Your task to perform on an android device: Add acer nitro to the cart on bestbuy.com, then select checkout. Image 0: 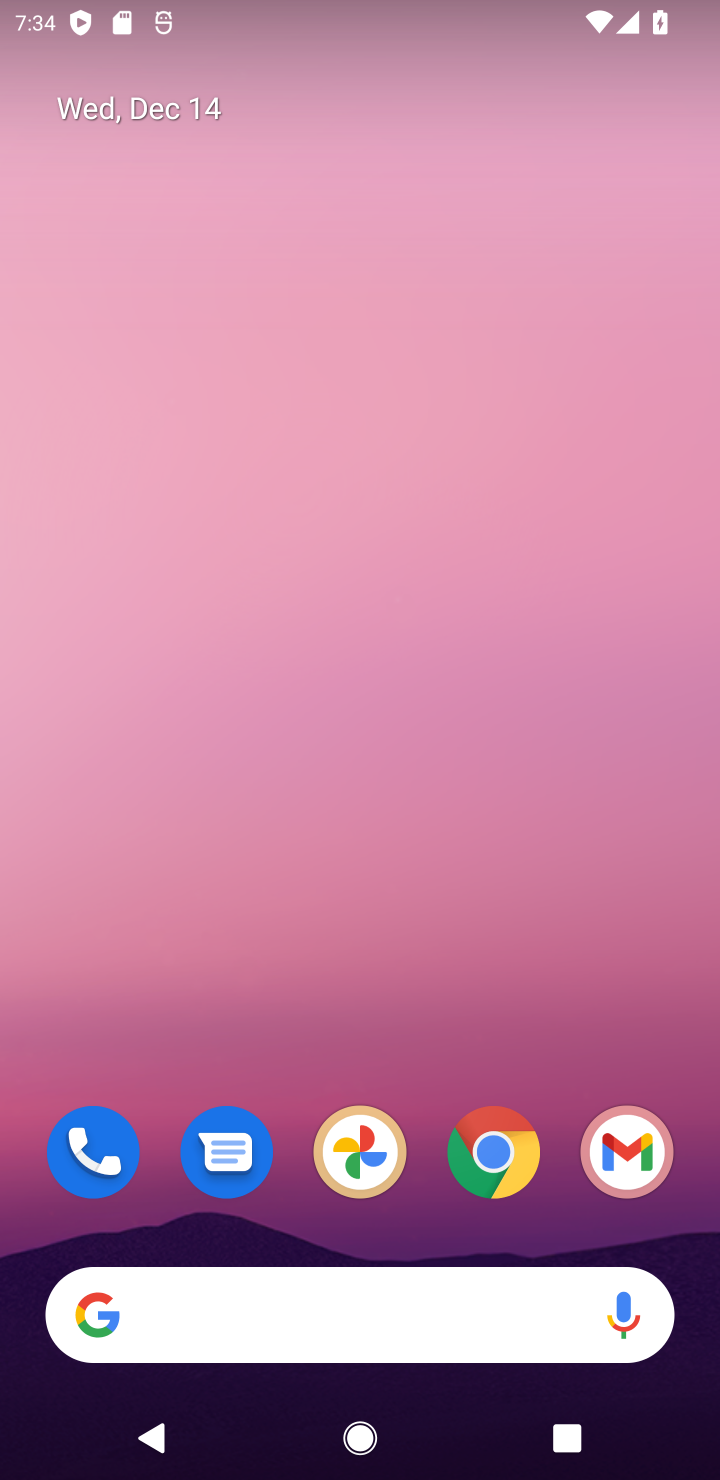
Step 0: click (508, 1168)
Your task to perform on an android device: Add acer nitro to the cart on bestbuy.com, then select checkout. Image 1: 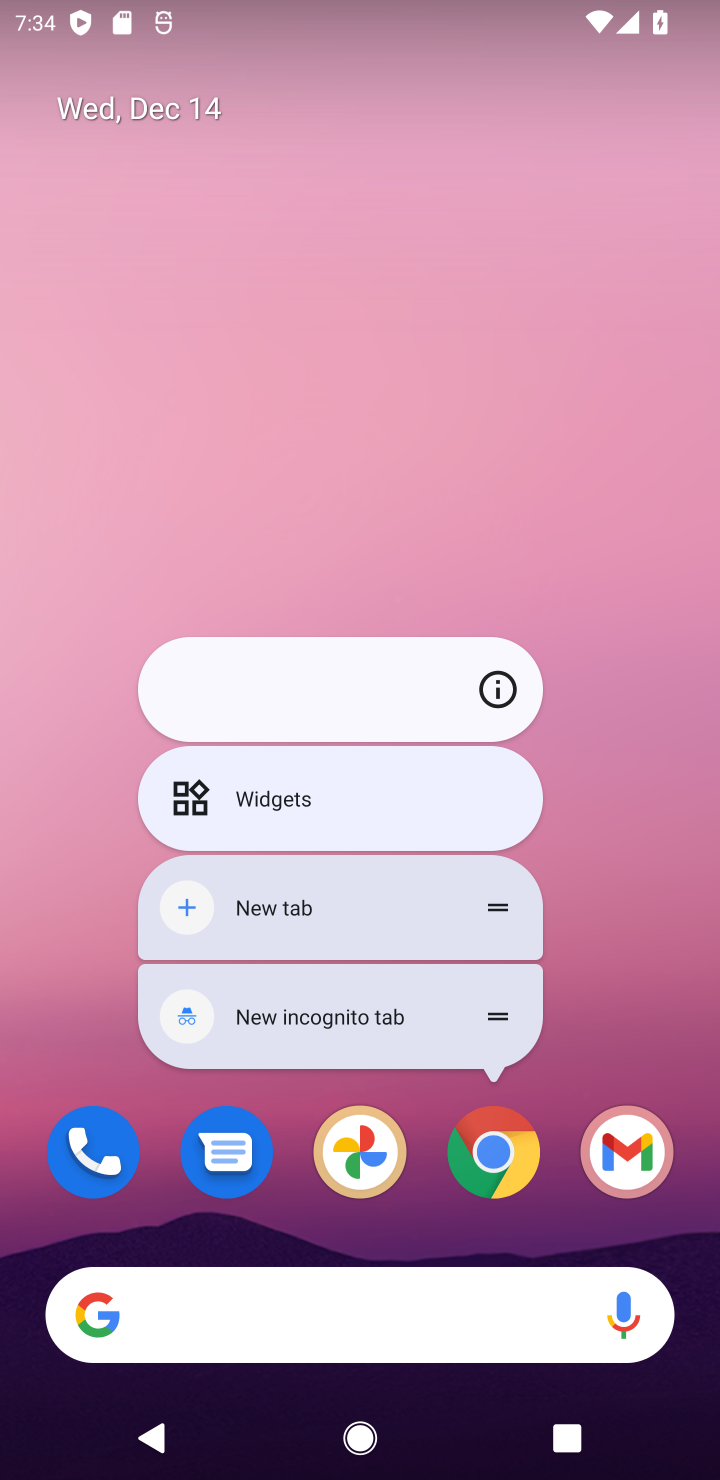
Step 1: click (506, 1168)
Your task to perform on an android device: Add acer nitro to the cart on bestbuy.com, then select checkout. Image 2: 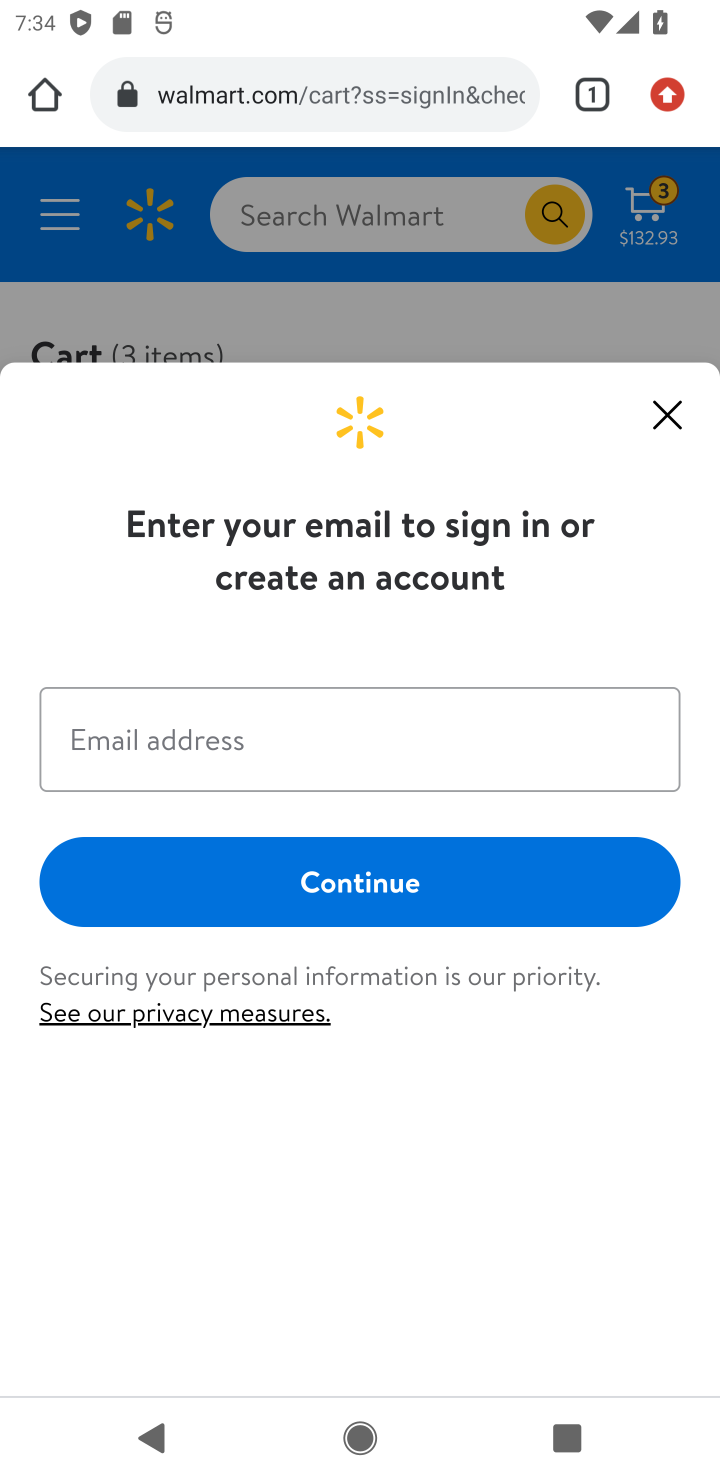
Step 2: click (256, 105)
Your task to perform on an android device: Add acer nitro to the cart on bestbuy.com, then select checkout. Image 3: 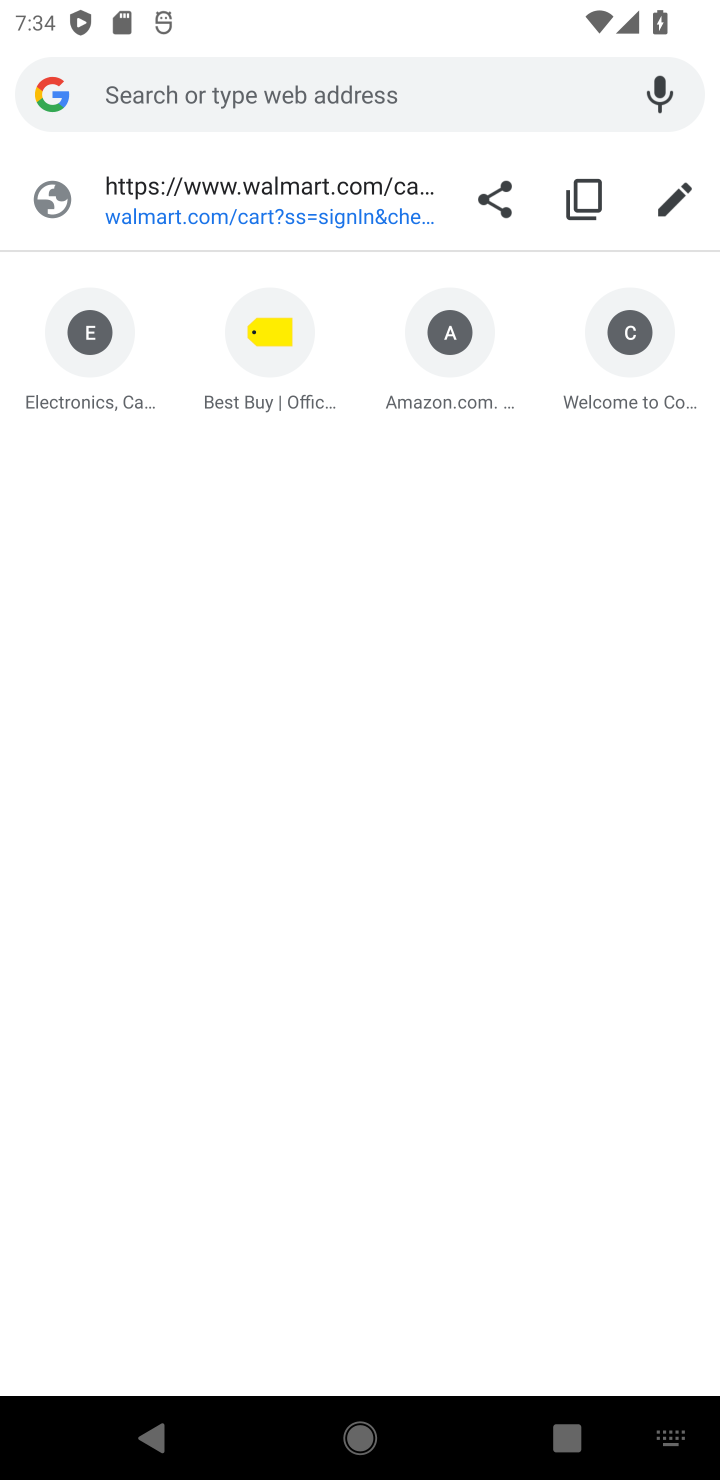
Step 3: click (256, 315)
Your task to perform on an android device: Add acer nitro to the cart on bestbuy.com, then select checkout. Image 4: 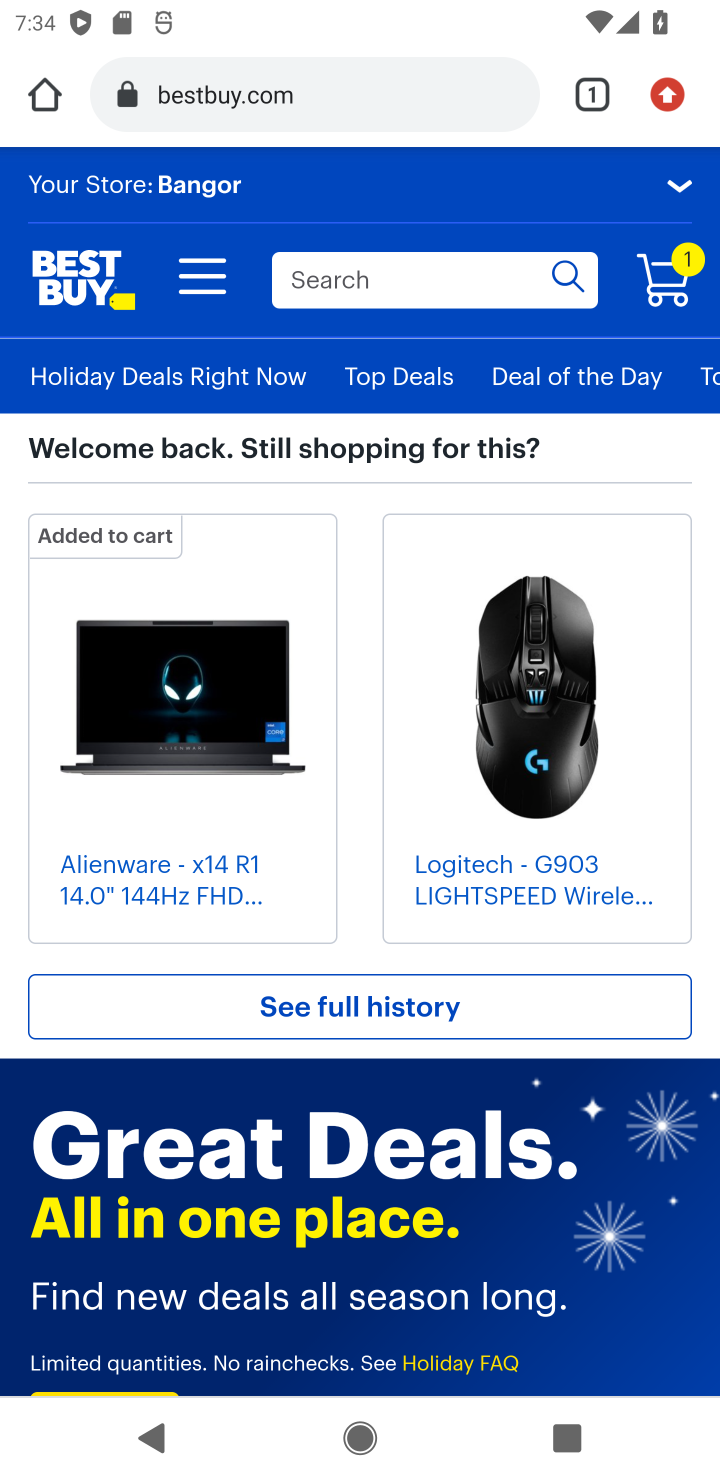
Step 4: click (347, 271)
Your task to perform on an android device: Add acer nitro to the cart on bestbuy.com, then select checkout. Image 5: 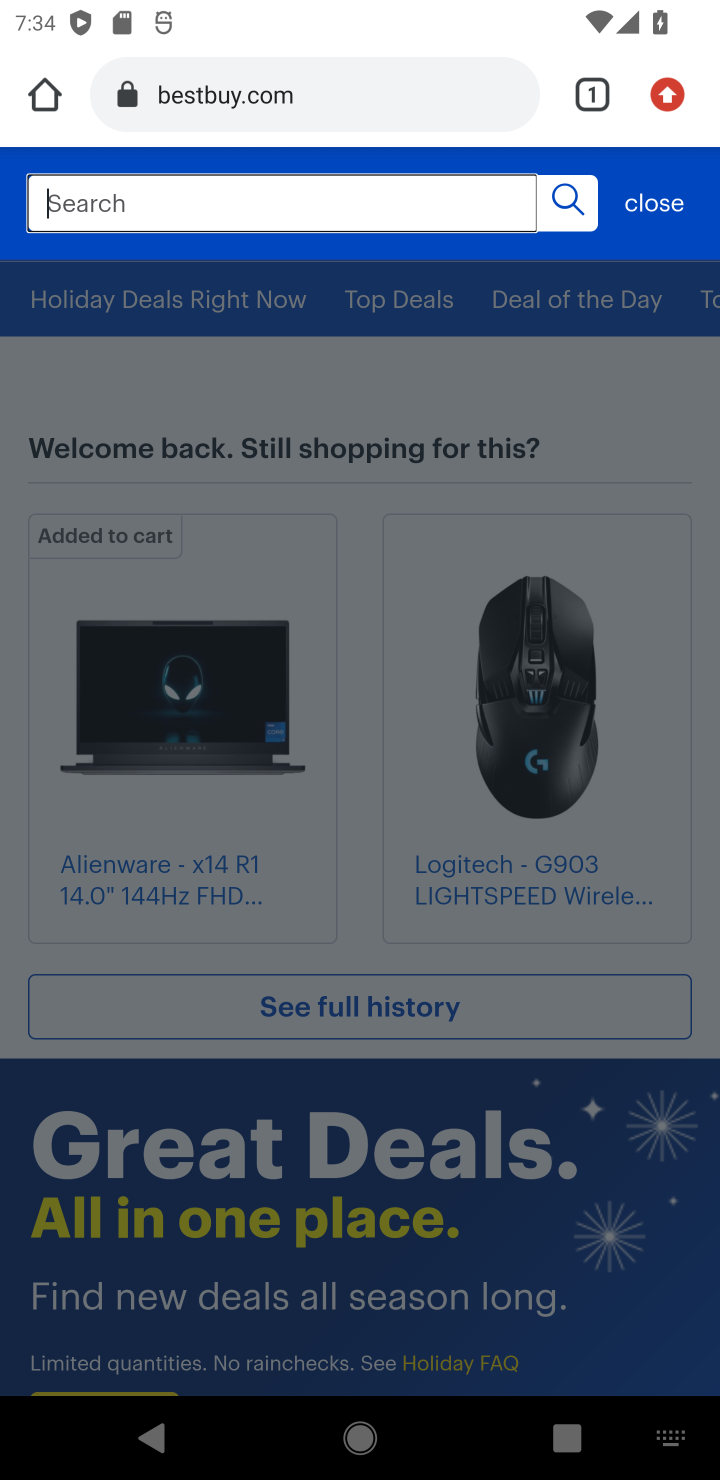
Step 5: type " acer nitro"
Your task to perform on an android device: Add acer nitro to the cart on bestbuy.com, then select checkout. Image 6: 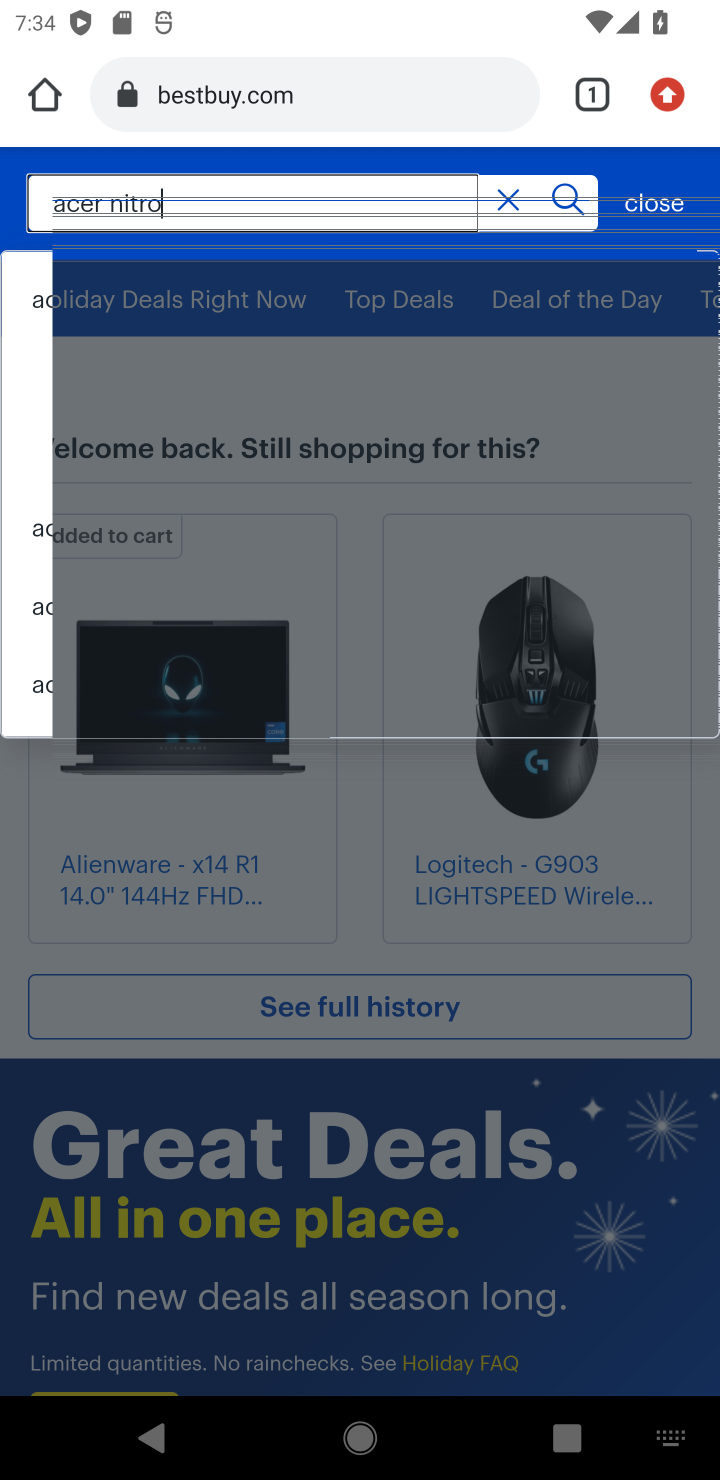
Step 6: click (88, 301)
Your task to perform on an android device: Add acer nitro to the cart on bestbuy.com, then select checkout. Image 7: 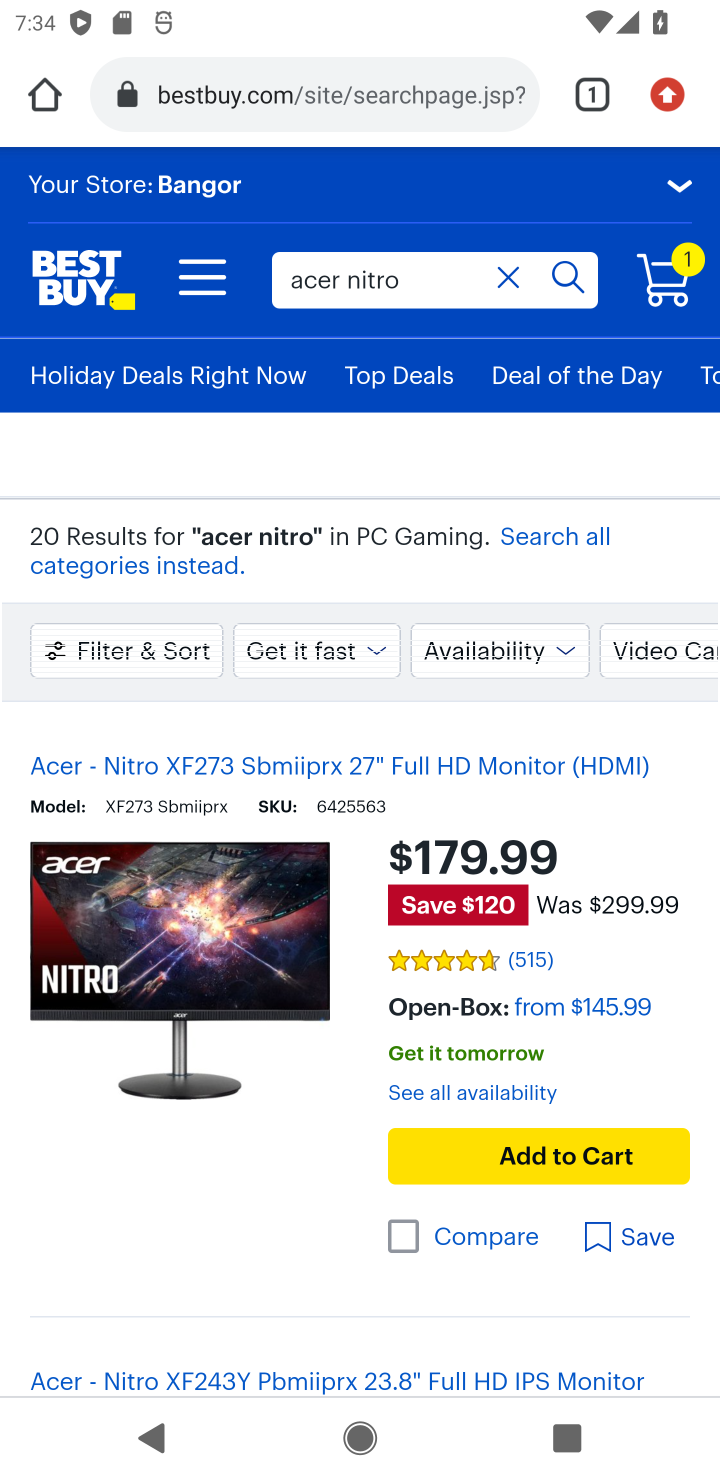
Step 7: click (205, 953)
Your task to perform on an android device: Add acer nitro to the cart on bestbuy.com, then select checkout. Image 8: 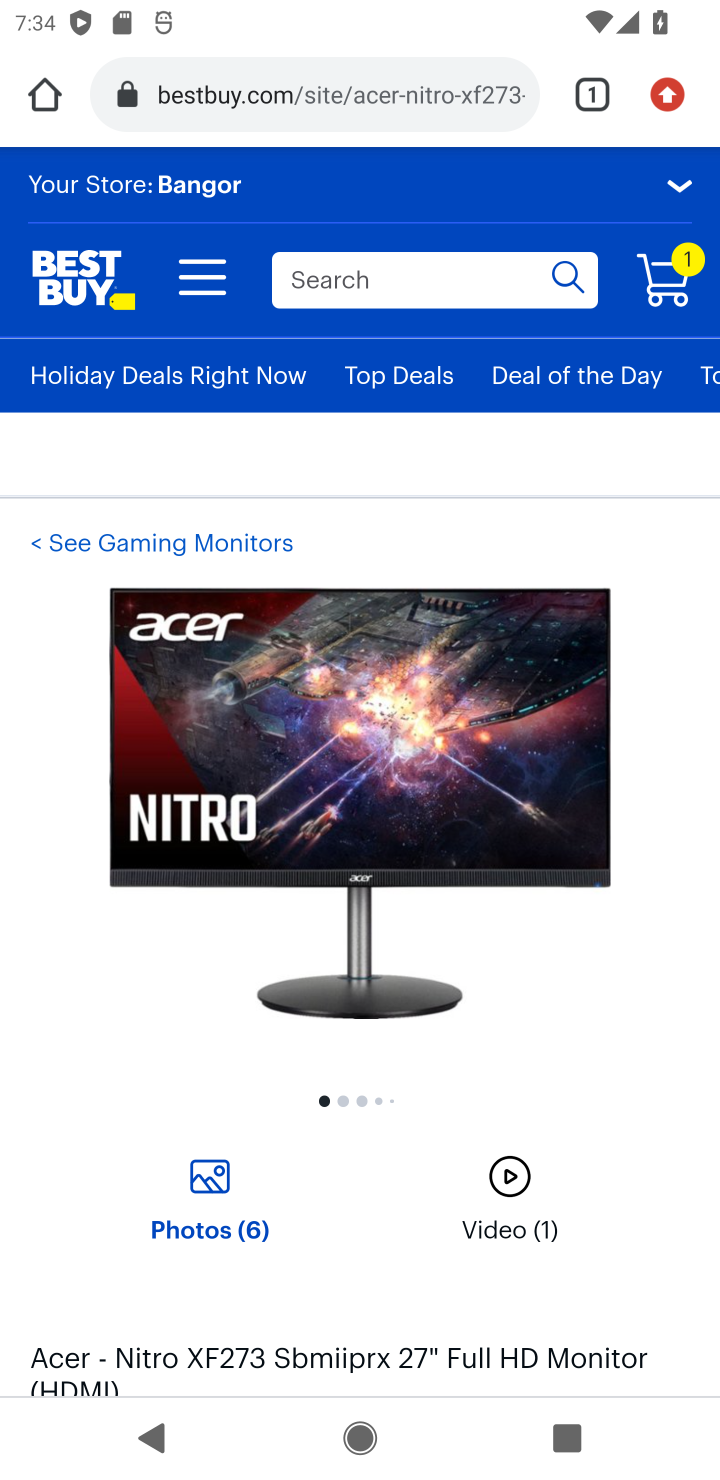
Step 8: drag from (332, 1160) to (326, 318)
Your task to perform on an android device: Add acer nitro to the cart on bestbuy.com, then select checkout. Image 9: 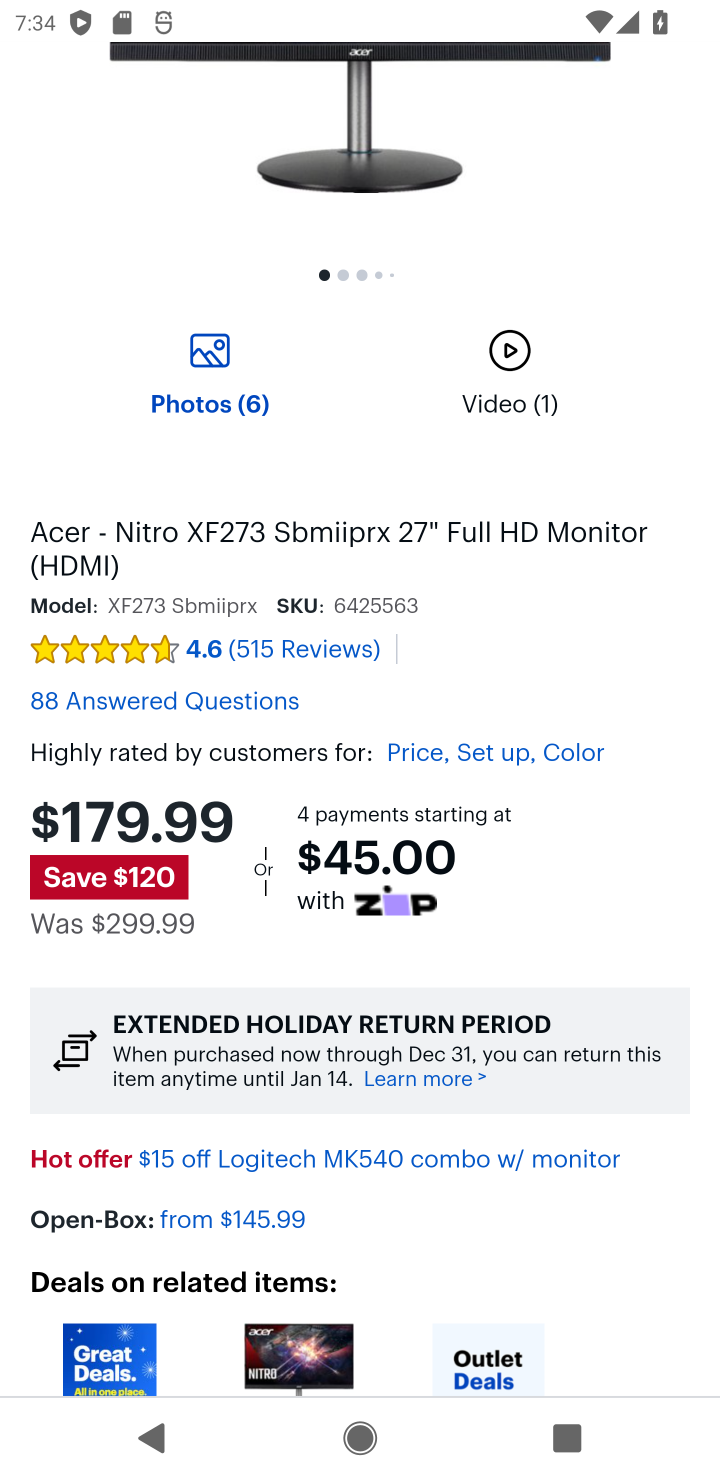
Step 9: drag from (295, 1119) to (281, 369)
Your task to perform on an android device: Add acer nitro to the cart on bestbuy.com, then select checkout. Image 10: 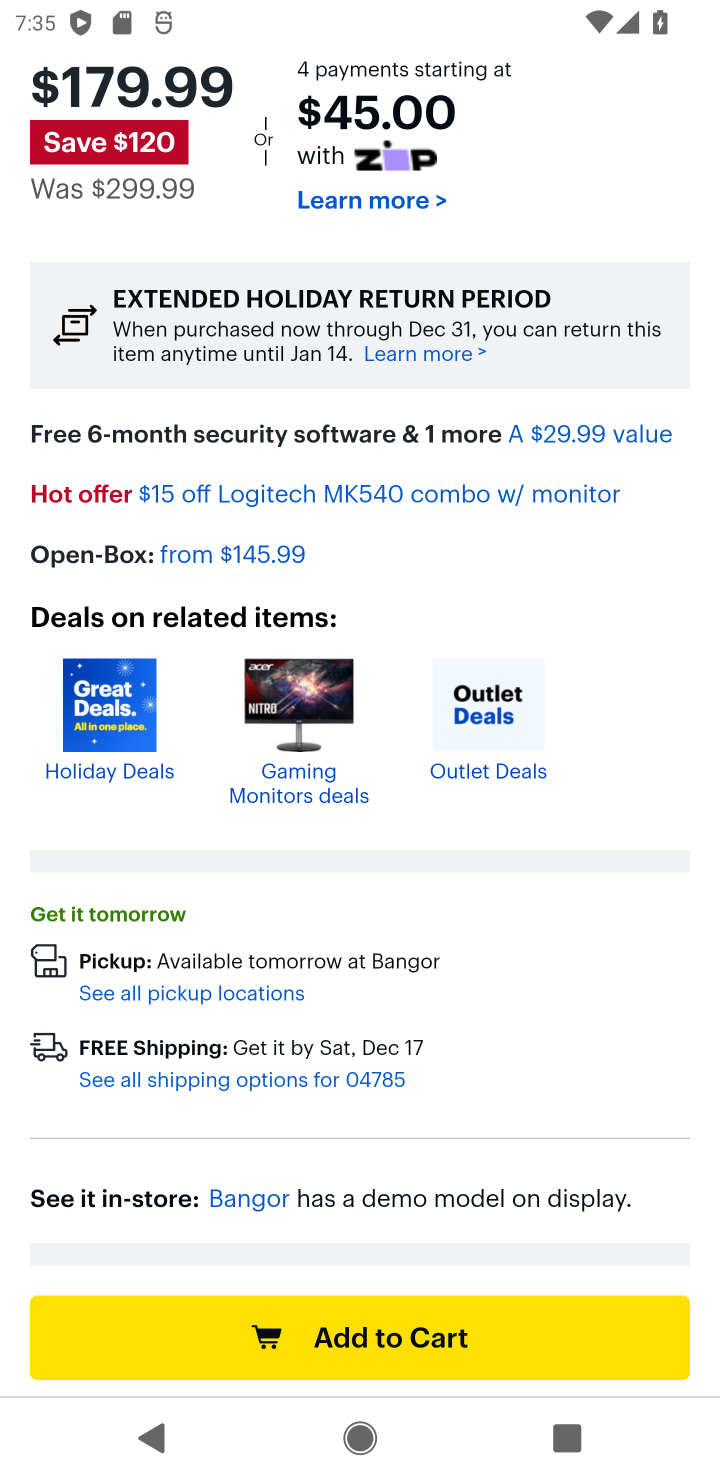
Step 10: click (327, 1263)
Your task to perform on an android device: Add acer nitro to the cart on bestbuy.com, then select checkout. Image 11: 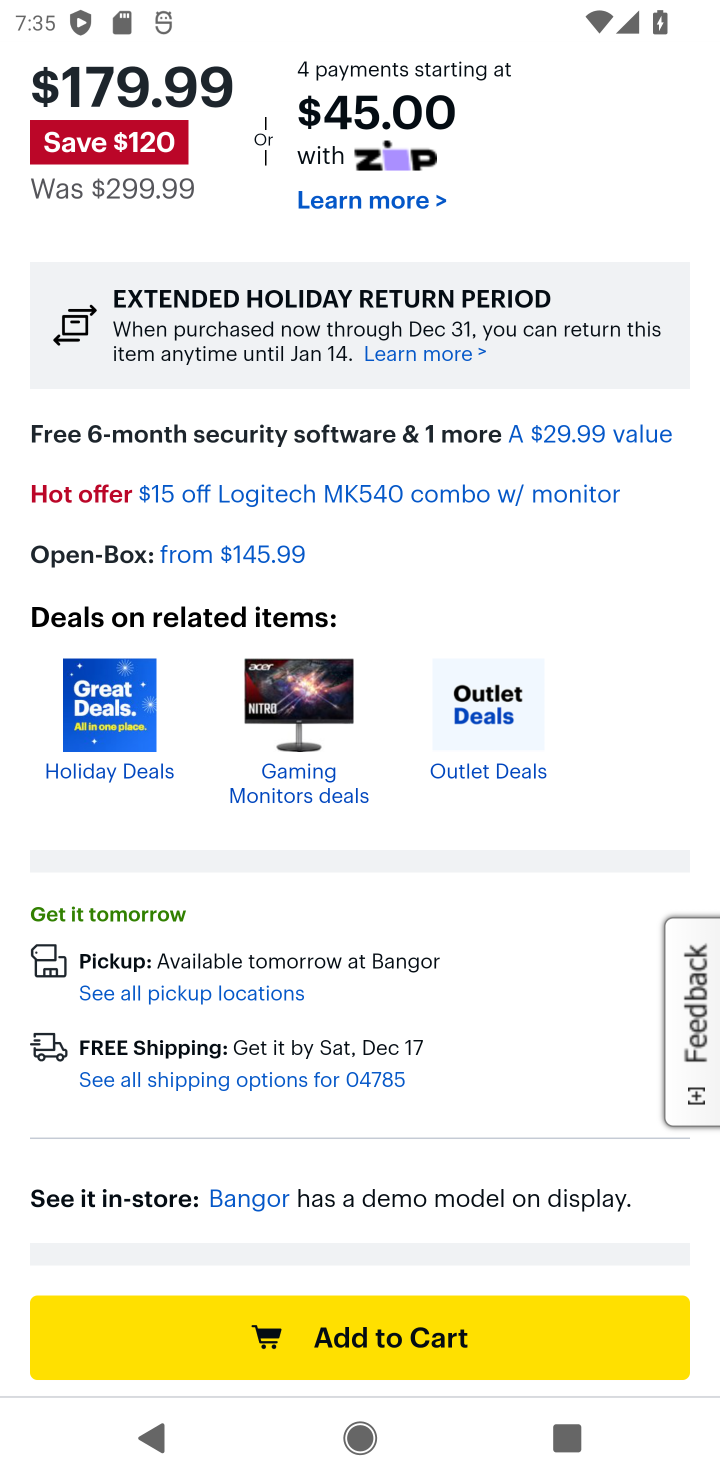
Step 11: click (297, 1317)
Your task to perform on an android device: Add acer nitro to the cart on bestbuy.com, then select checkout. Image 12: 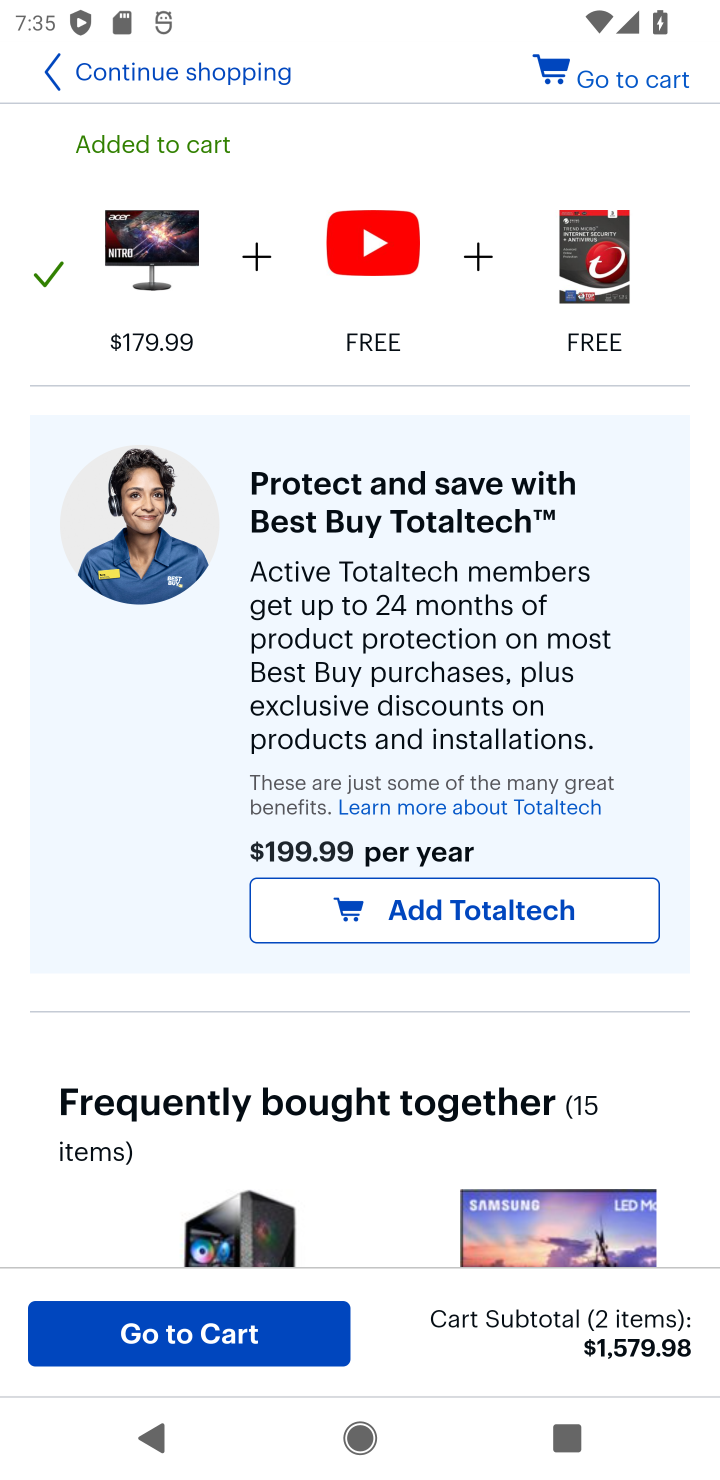
Step 12: click (632, 79)
Your task to perform on an android device: Add acer nitro to the cart on bestbuy.com, then select checkout. Image 13: 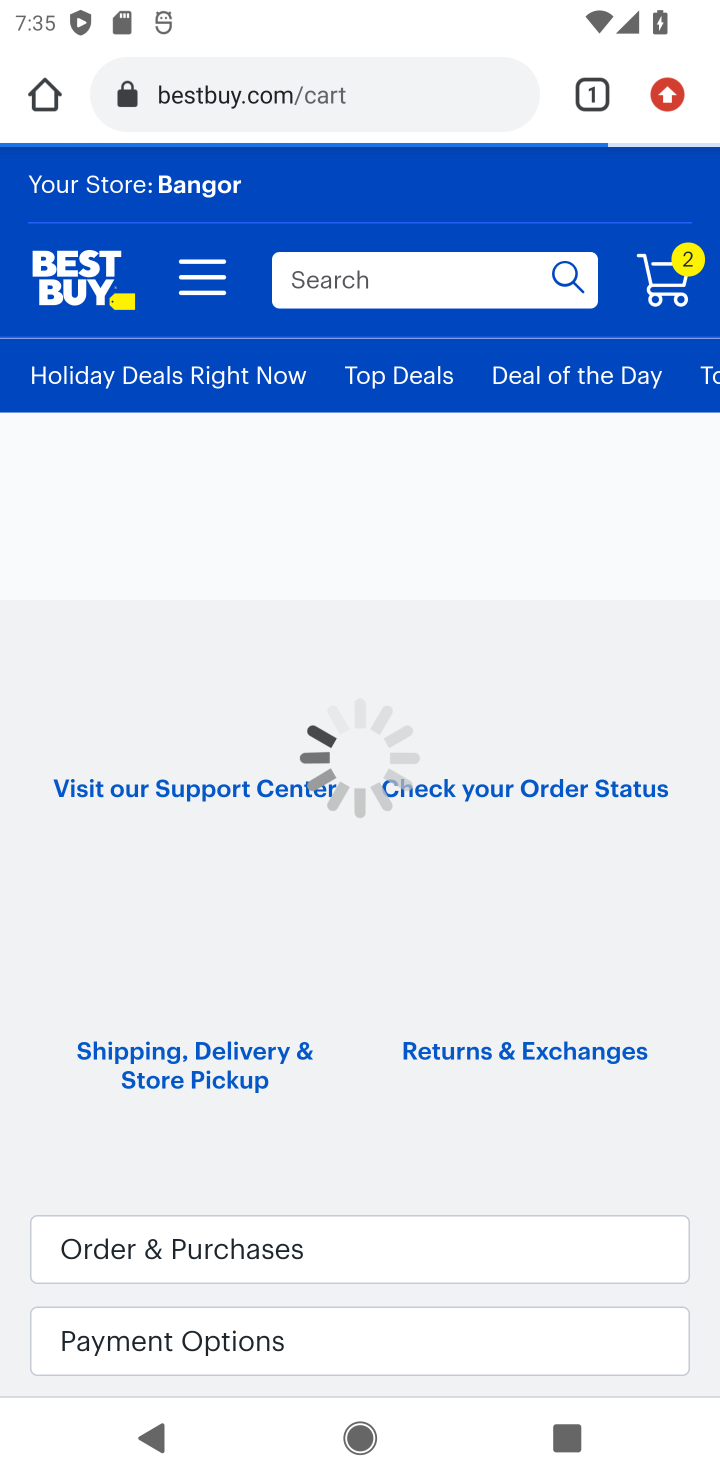
Step 13: drag from (360, 969) to (357, 510)
Your task to perform on an android device: Add acer nitro to the cart on bestbuy.com, then select checkout. Image 14: 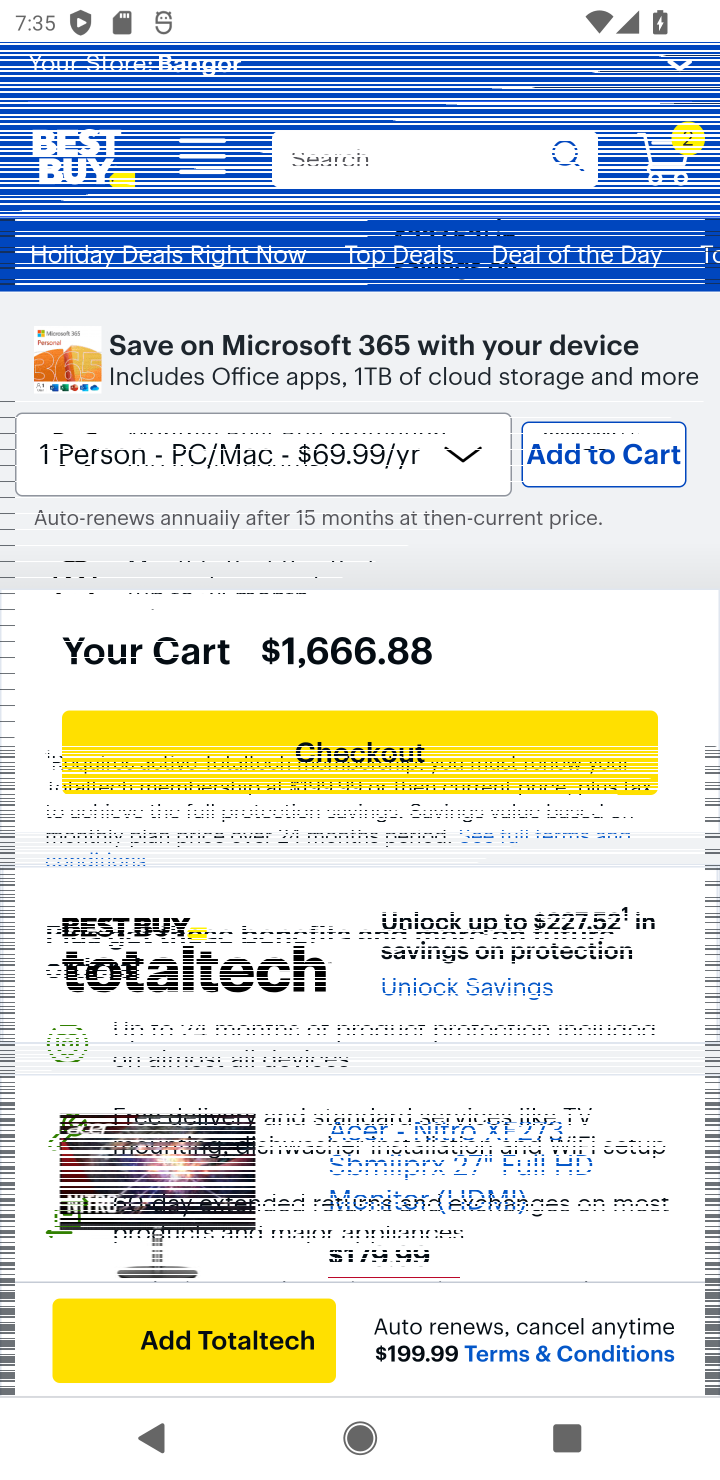
Step 14: click (323, 777)
Your task to perform on an android device: Add acer nitro to the cart on bestbuy.com, then select checkout. Image 15: 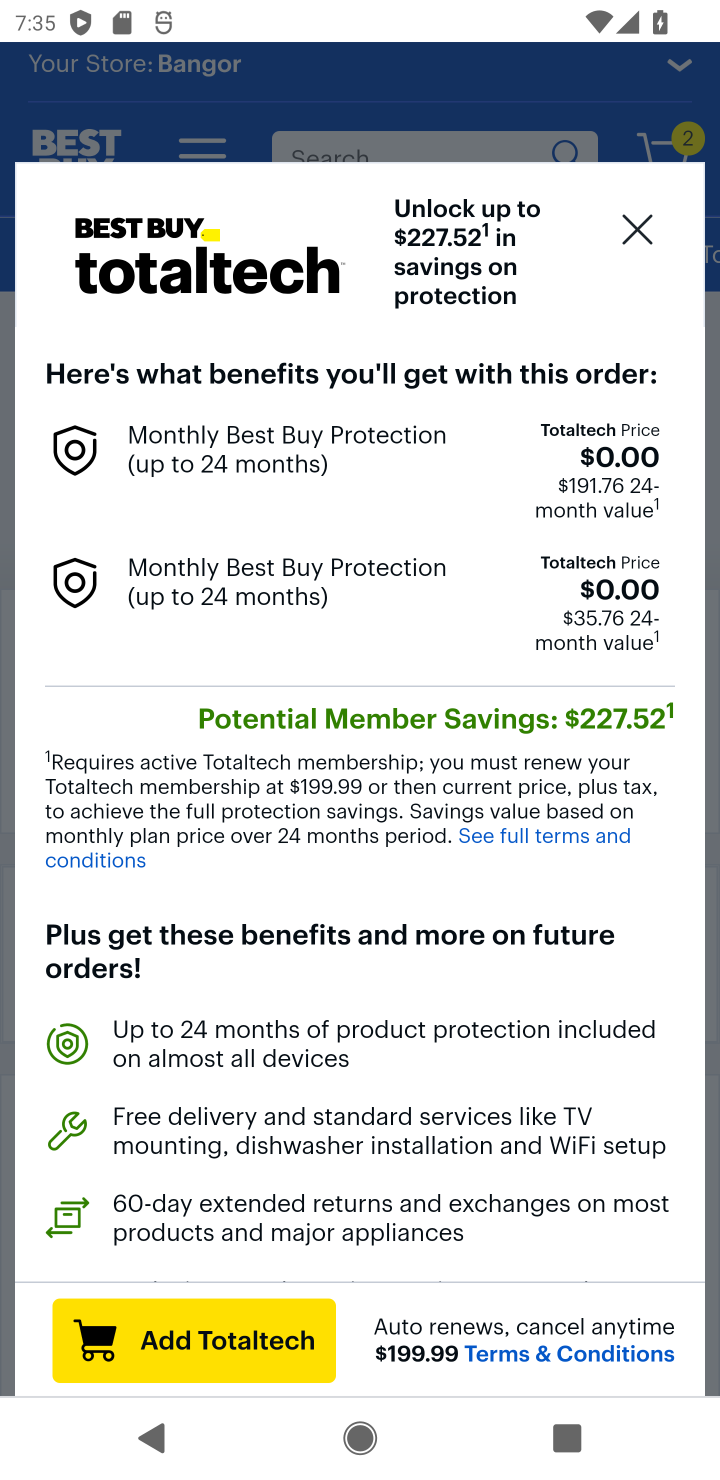
Step 15: click (632, 234)
Your task to perform on an android device: Add acer nitro to the cart on bestbuy.com, then select checkout. Image 16: 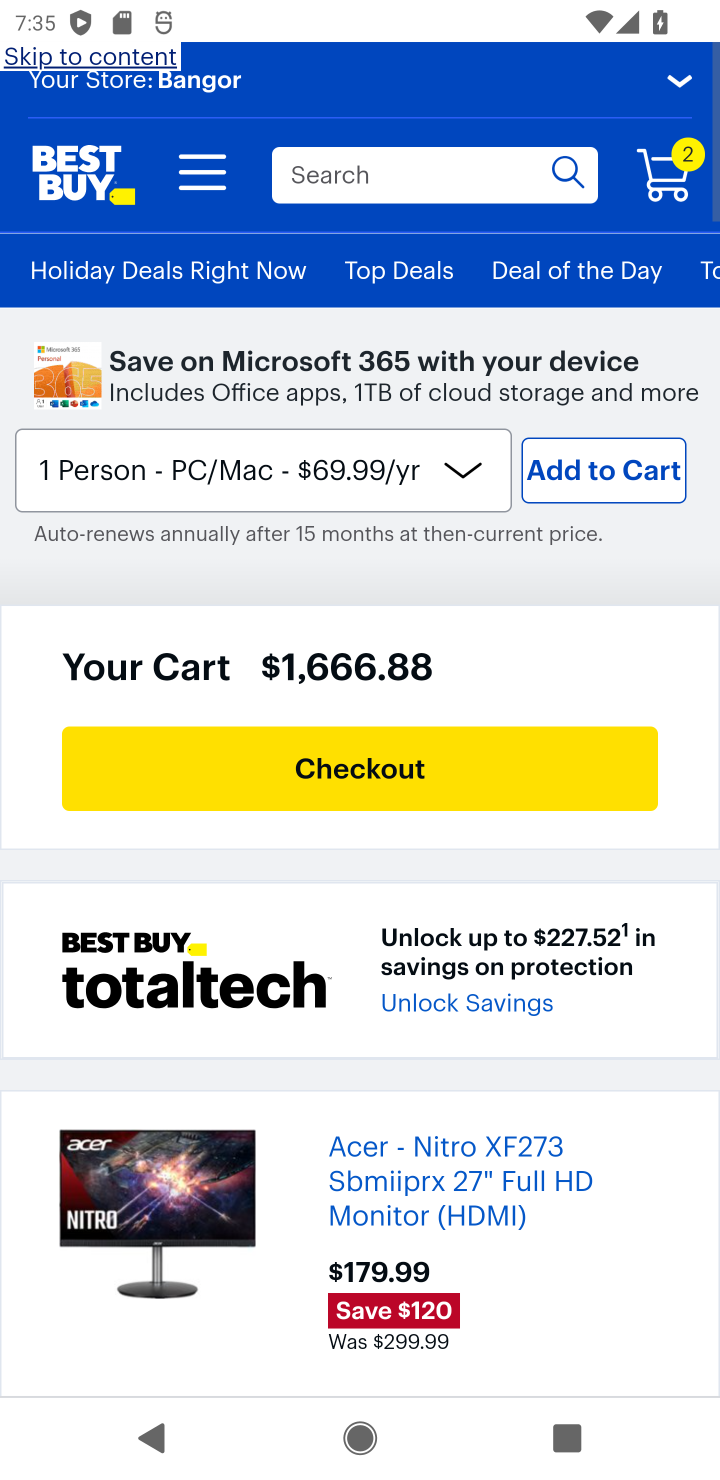
Step 16: click (342, 773)
Your task to perform on an android device: Add acer nitro to the cart on bestbuy.com, then select checkout. Image 17: 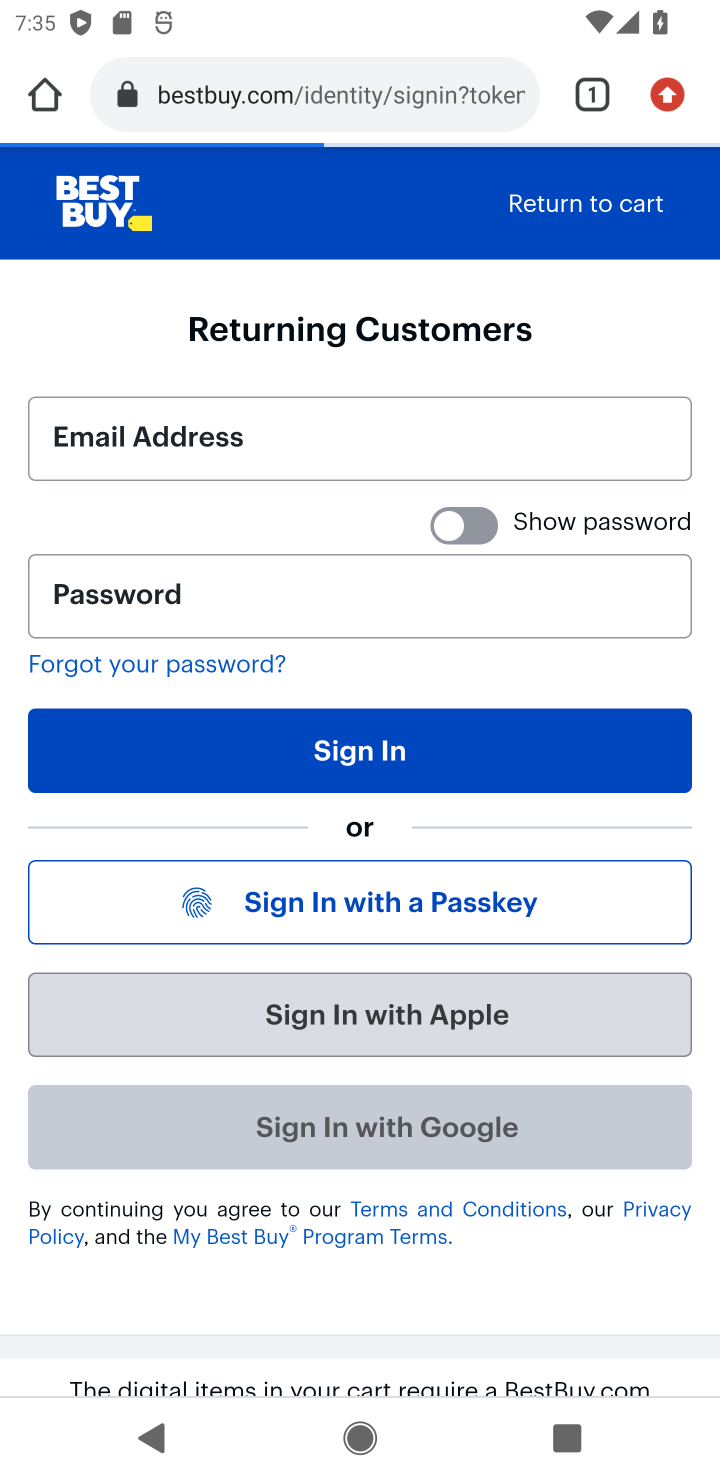
Step 17: task complete